Your task to perform on an android device: Go to battery settings Image 0: 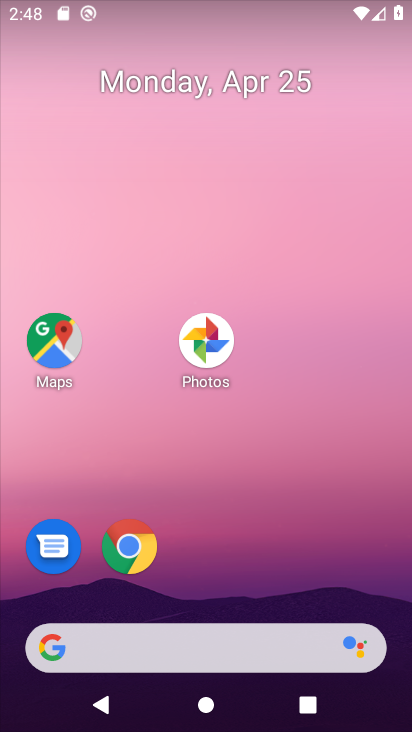
Step 0: drag from (255, 568) to (267, 227)
Your task to perform on an android device: Go to battery settings Image 1: 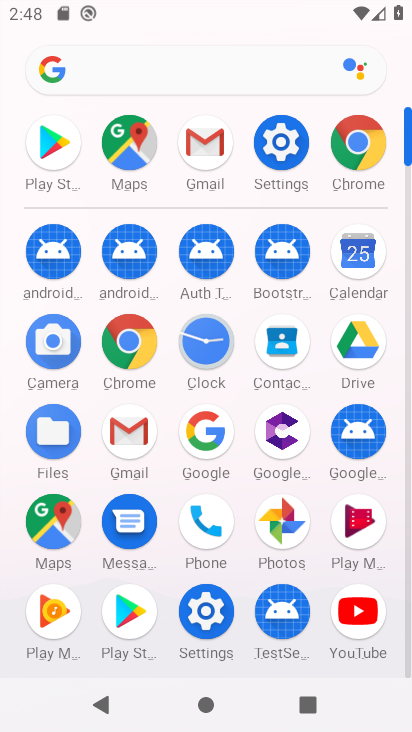
Step 1: click (284, 137)
Your task to perform on an android device: Go to battery settings Image 2: 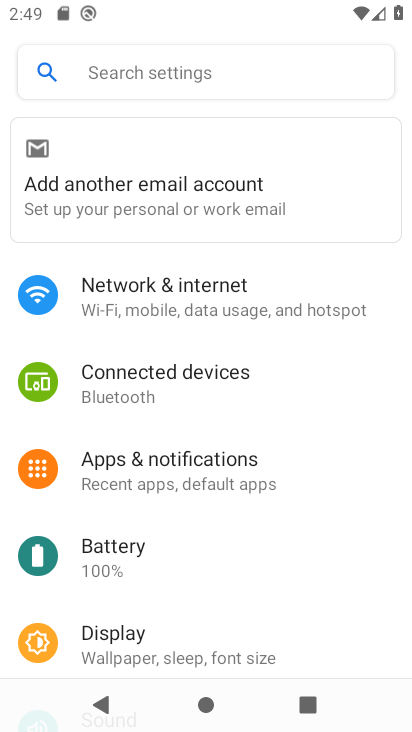
Step 2: click (140, 559)
Your task to perform on an android device: Go to battery settings Image 3: 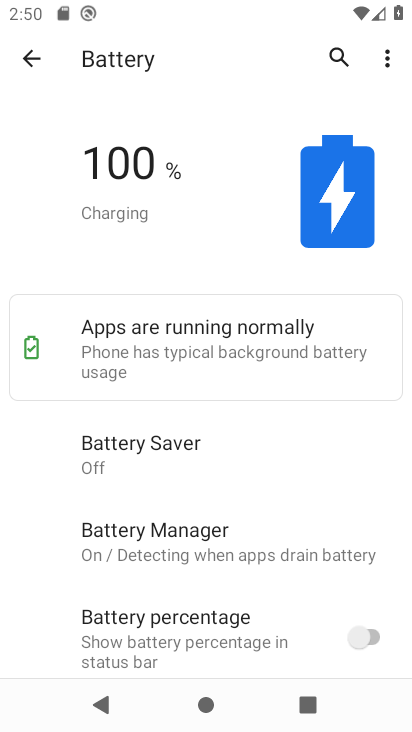
Step 3: task complete